Your task to perform on an android device: Open the map Image 0: 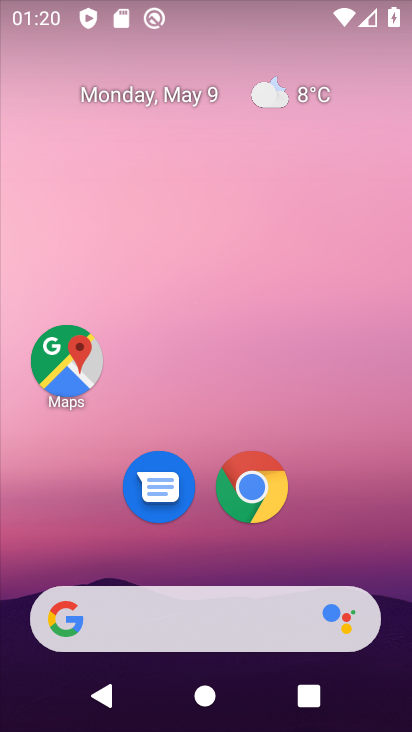
Step 0: click (84, 361)
Your task to perform on an android device: Open the map Image 1: 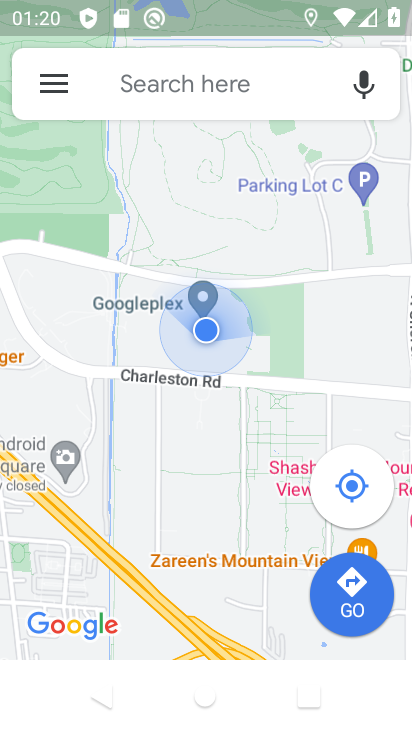
Step 1: task complete